Your task to perform on an android device: turn off javascript in the chrome app Image 0: 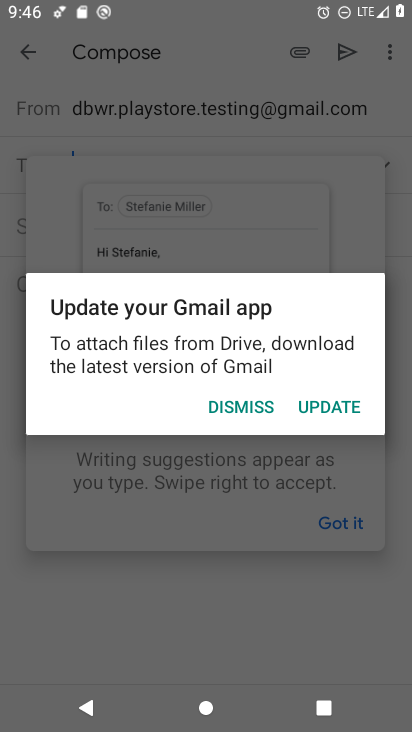
Step 0: press home button
Your task to perform on an android device: turn off javascript in the chrome app Image 1: 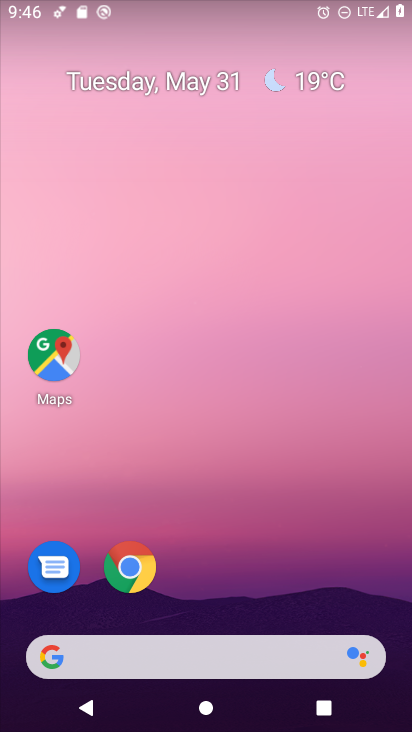
Step 1: click (146, 574)
Your task to perform on an android device: turn off javascript in the chrome app Image 2: 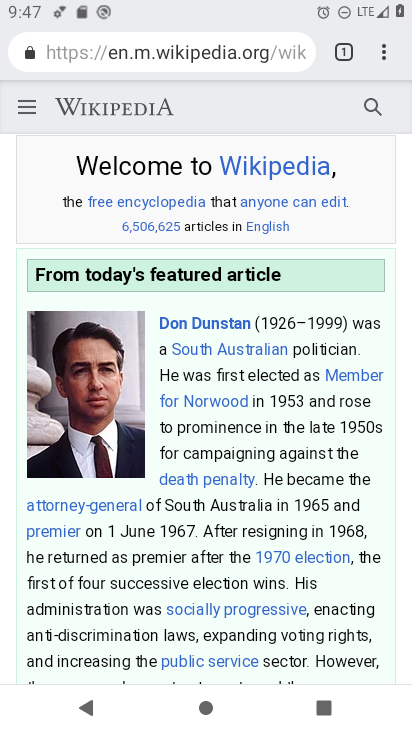
Step 2: click (386, 54)
Your task to perform on an android device: turn off javascript in the chrome app Image 3: 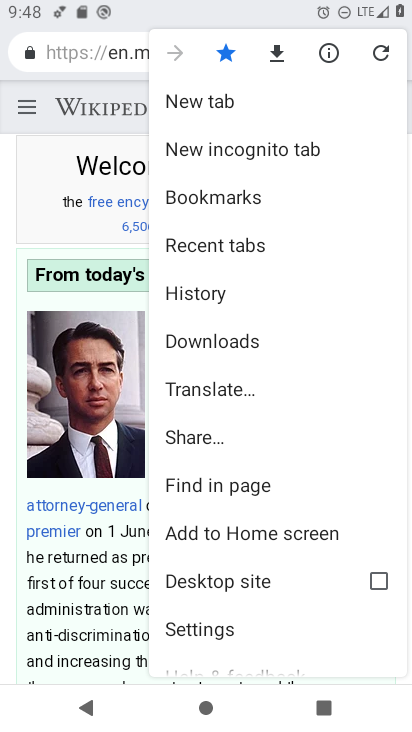
Step 3: click (225, 628)
Your task to perform on an android device: turn off javascript in the chrome app Image 4: 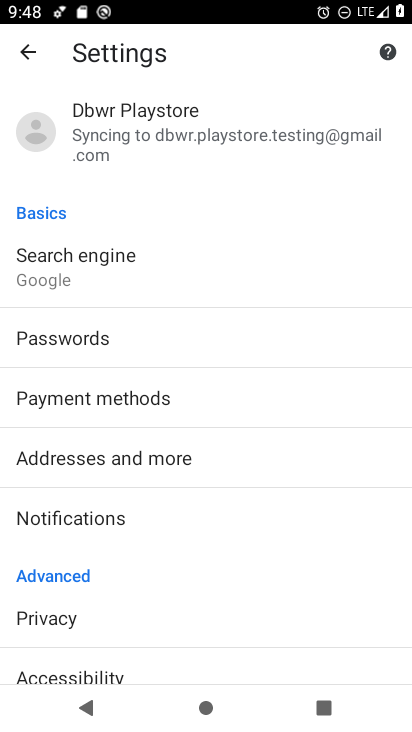
Step 4: drag from (93, 668) to (91, 394)
Your task to perform on an android device: turn off javascript in the chrome app Image 5: 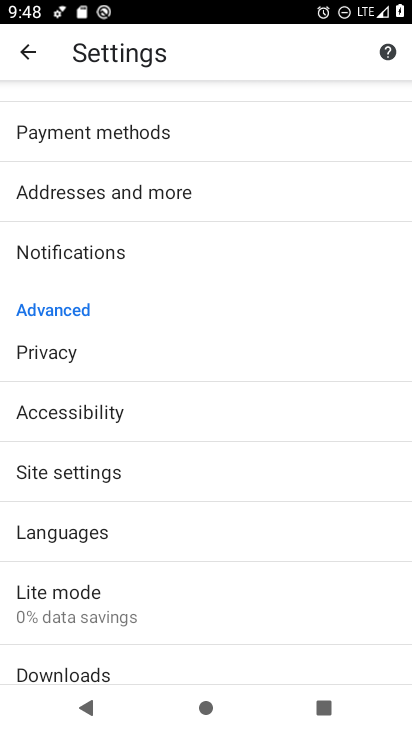
Step 5: click (81, 476)
Your task to perform on an android device: turn off javascript in the chrome app Image 6: 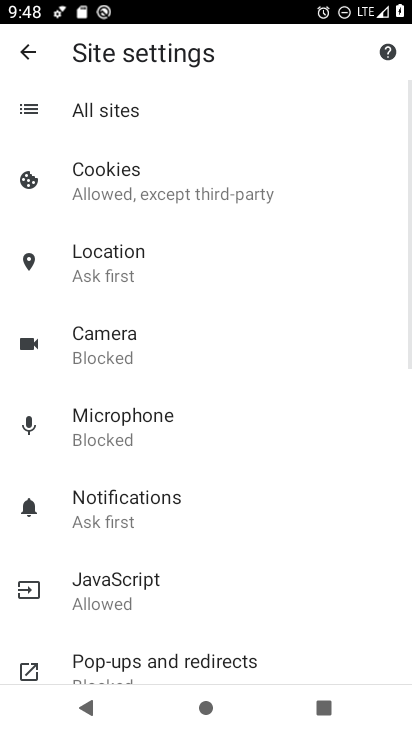
Step 6: click (135, 597)
Your task to perform on an android device: turn off javascript in the chrome app Image 7: 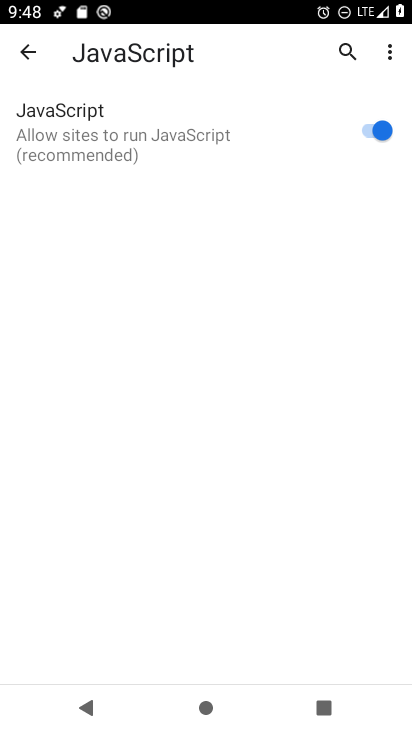
Step 7: click (370, 128)
Your task to perform on an android device: turn off javascript in the chrome app Image 8: 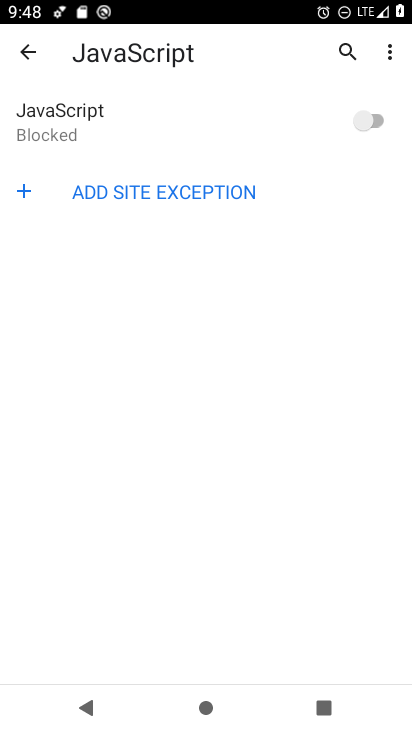
Step 8: task complete